Your task to perform on an android device: toggle airplane mode Image 0: 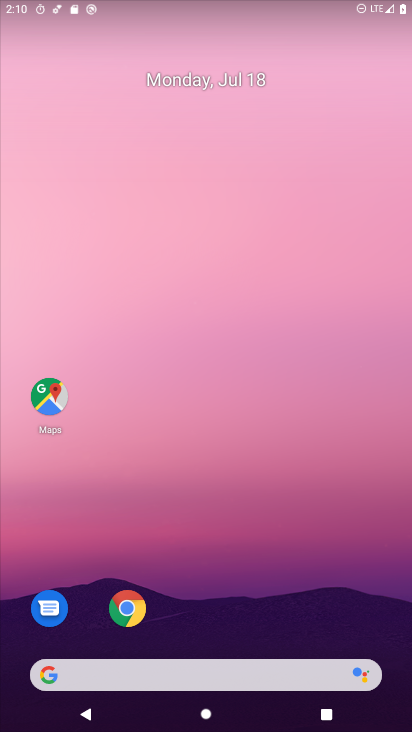
Step 0: drag from (244, 662) to (226, 87)
Your task to perform on an android device: toggle airplane mode Image 1: 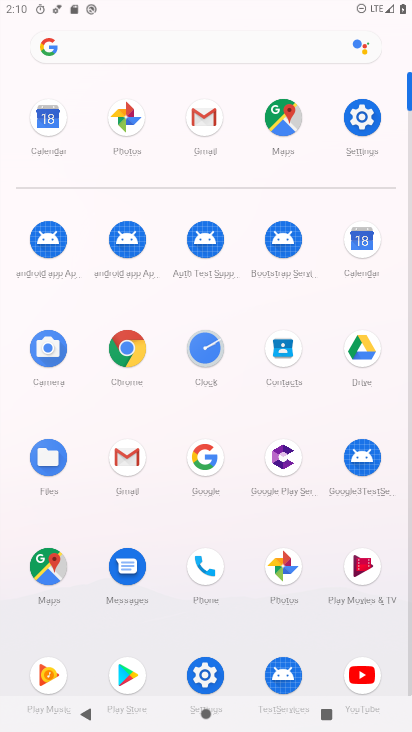
Step 1: click (351, 125)
Your task to perform on an android device: toggle airplane mode Image 2: 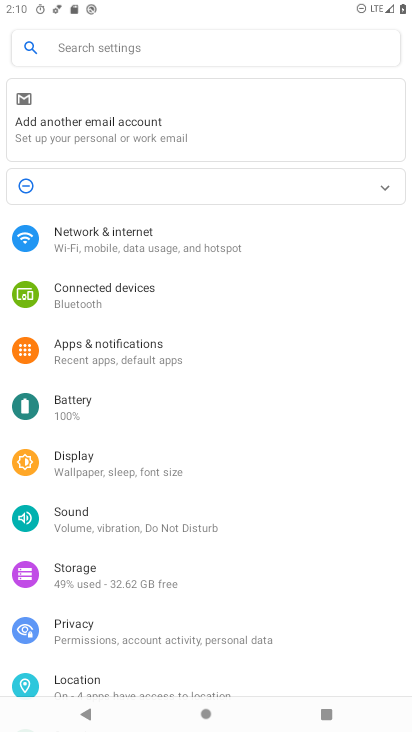
Step 2: click (108, 252)
Your task to perform on an android device: toggle airplane mode Image 3: 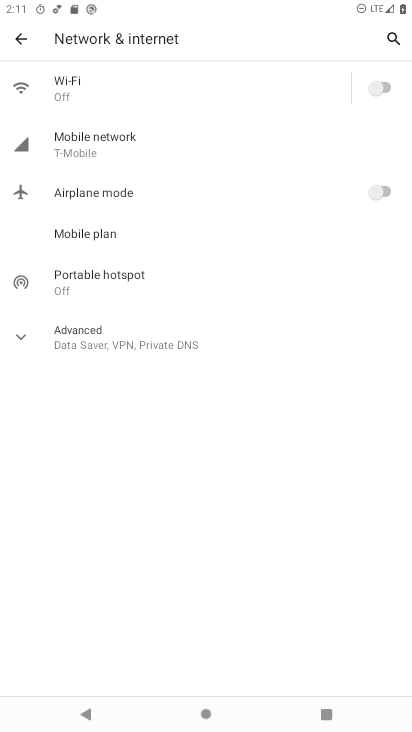
Step 3: click (390, 195)
Your task to perform on an android device: toggle airplane mode Image 4: 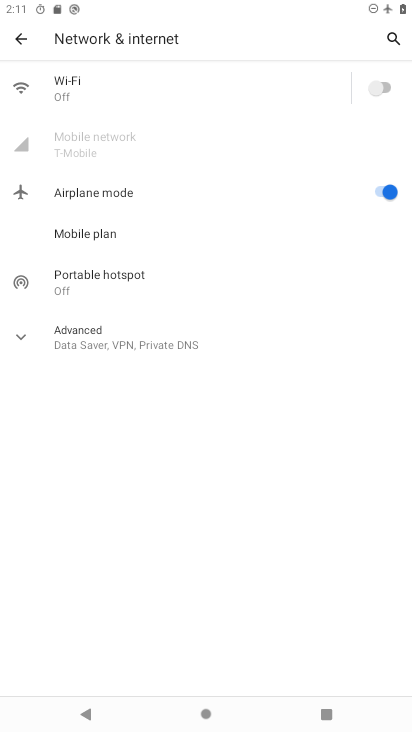
Step 4: task complete